Your task to perform on an android device: change alarm snooze length Image 0: 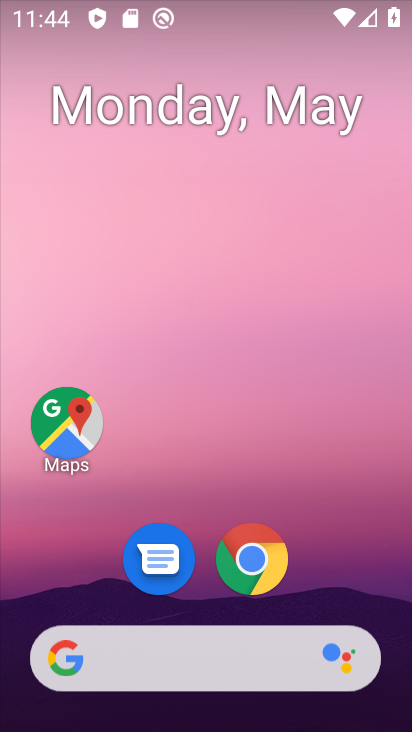
Step 0: drag from (169, 621) to (291, 24)
Your task to perform on an android device: change alarm snooze length Image 1: 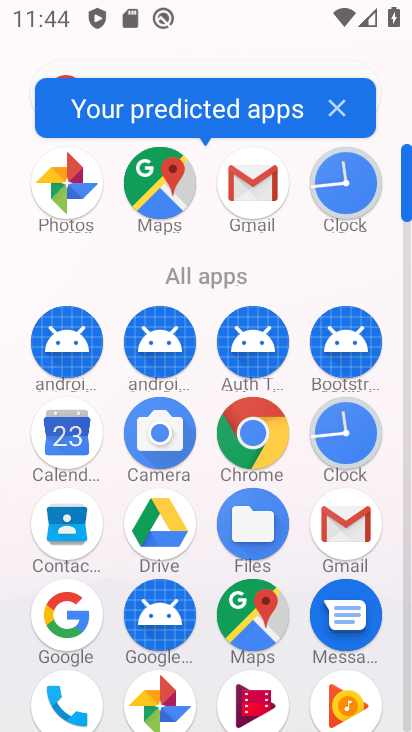
Step 1: click (354, 445)
Your task to perform on an android device: change alarm snooze length Image 2: 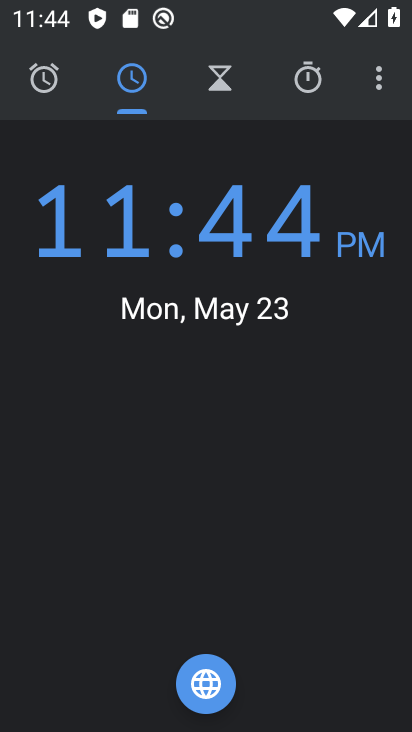
Step 2: click (379, 79)
Your task to perform on an android device: change alarm snooze length Image 3: 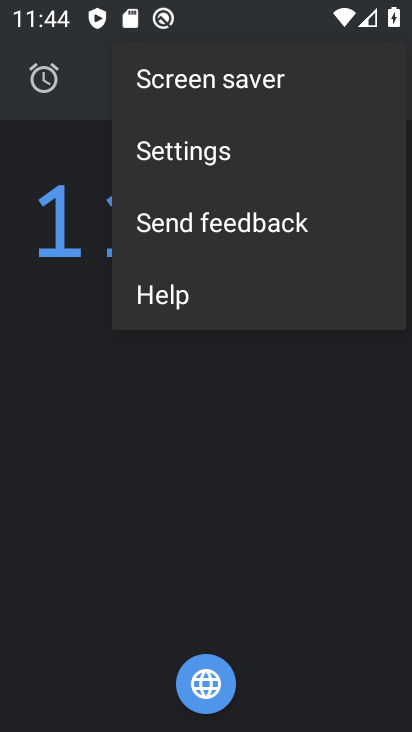
Step 3: click (319, 162)
Your task to perform on an android device: change alarm snooze length Image 4: 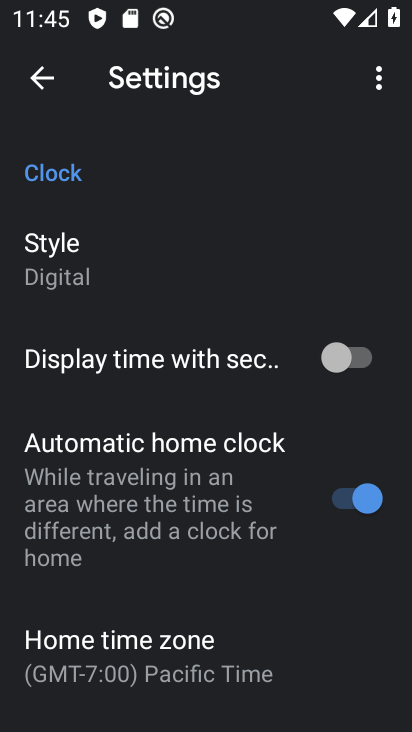
Step 4: drag from (122, 648) to (211, 144)
Your task to perform on an android device: change alarm snooze length Image 5: 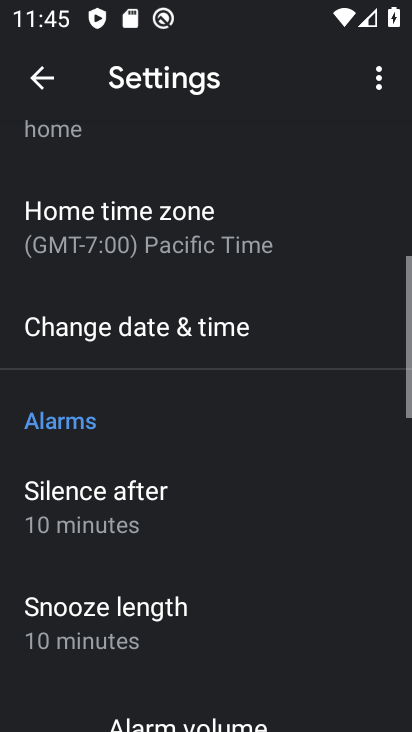
Step 5: drag from (147, 581) to (197, 374)
Your task to perform on an android device: change alarm snooze length Image 6: 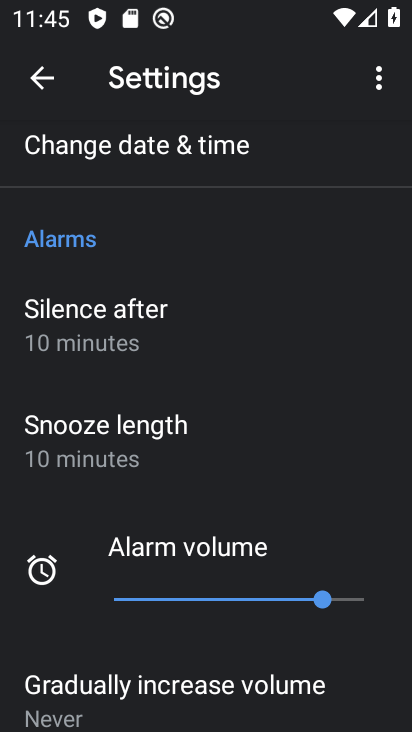
Step 6: click (206, 437)
Your task to perform on an android device: change alarm snooze length Image 7: 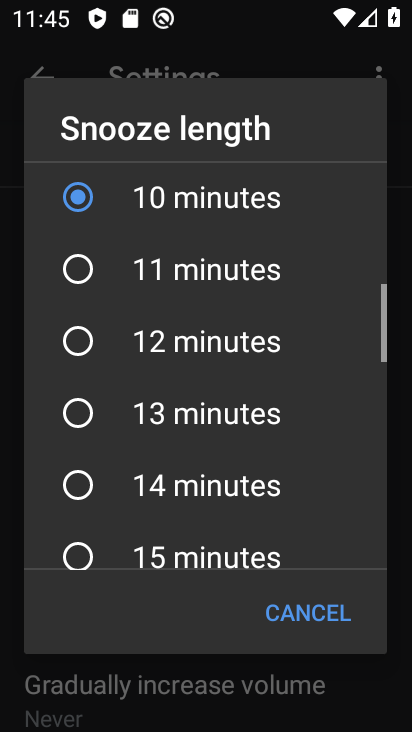
Step 7: click (224, 552)
Your task to perform on an android device: change alarm snooze length Image 8: 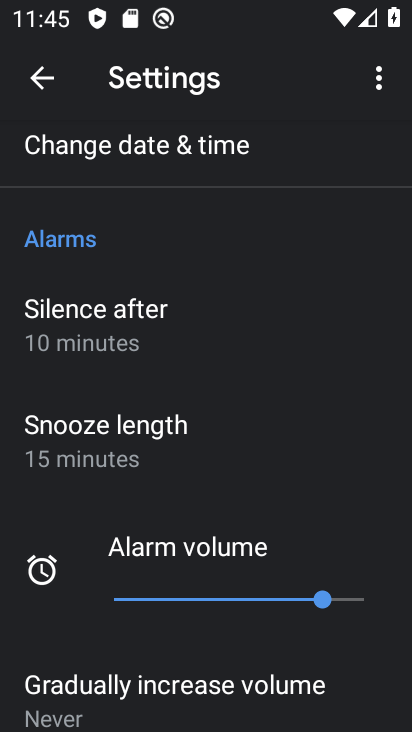
Step 8: click (179, 440)
Your task to perform on an android device: change alarm snooze length Image 9: 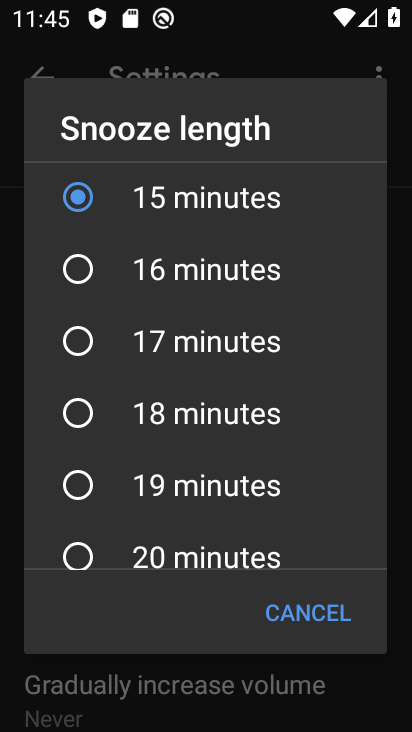
Step 9: click (245, 539)
Your task to perform on an android device: change alarm snooze length Image 10: 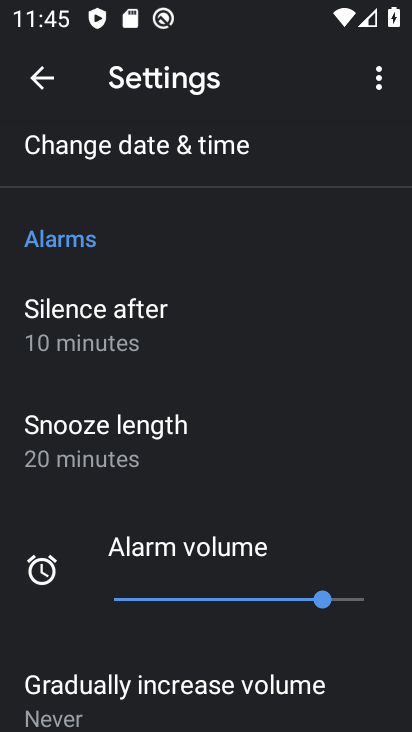
Step 10: task complete